Your task to perform on an android device: Open Chrome and go to settings Image 0: 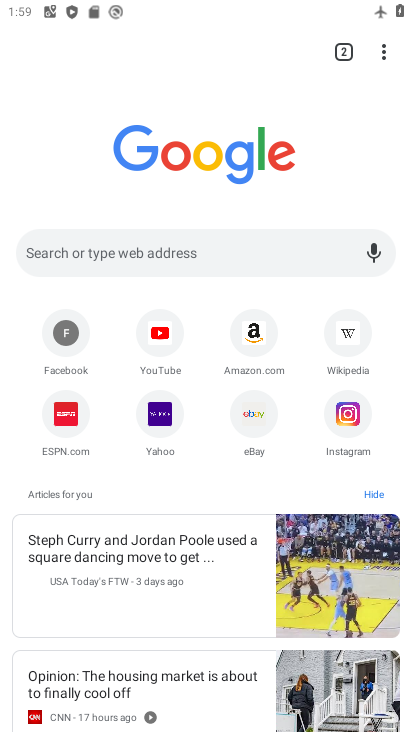
Step 0: drag from (385, 47) to (218, 439)
Your task to perform on an android device: Open Chrome and go to settings Image 1: 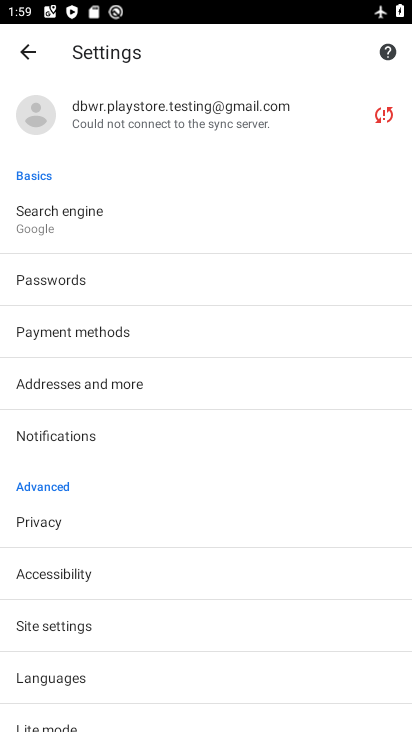
Step 1: task complete